Your task to perform on an android device: change the clock display to digital Image 0: 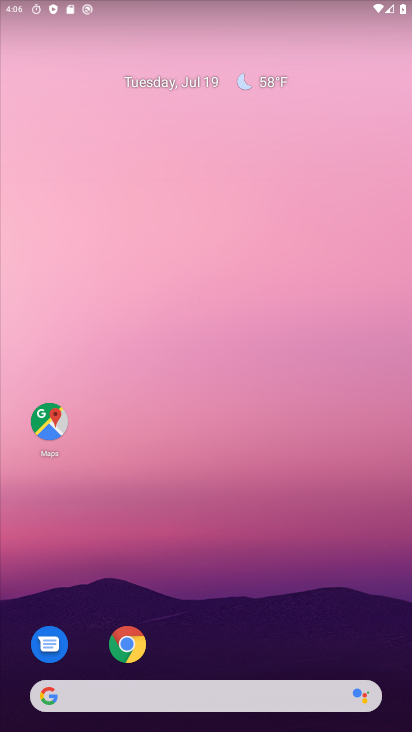
Step 0: drag from (333, 621) to (316, 117)
Your task to perform on an android device: change the clock display to digital Image 1: 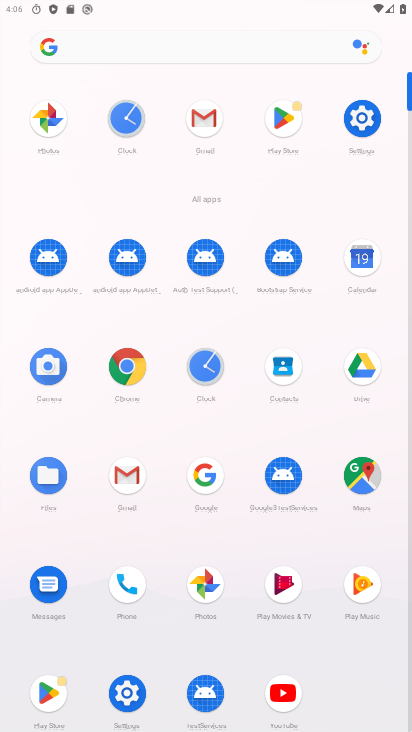
Step 1: click (208, 374)
Your task to perform on an android device: change the clock display to digital Image 2: 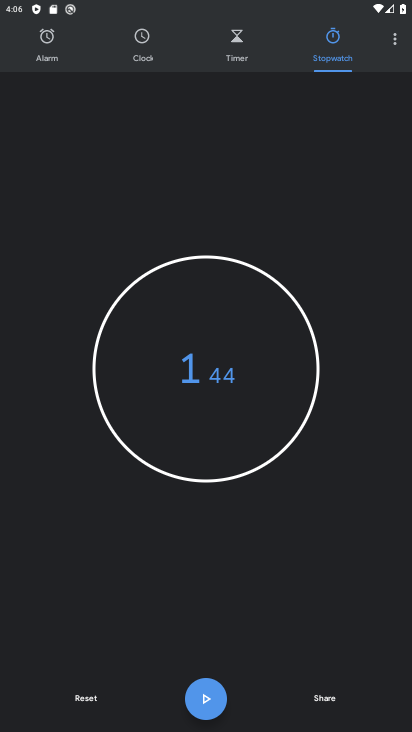
Step 2: click (394, 39)
Your task to perform on an android device: change the clock display to digital Image 3: 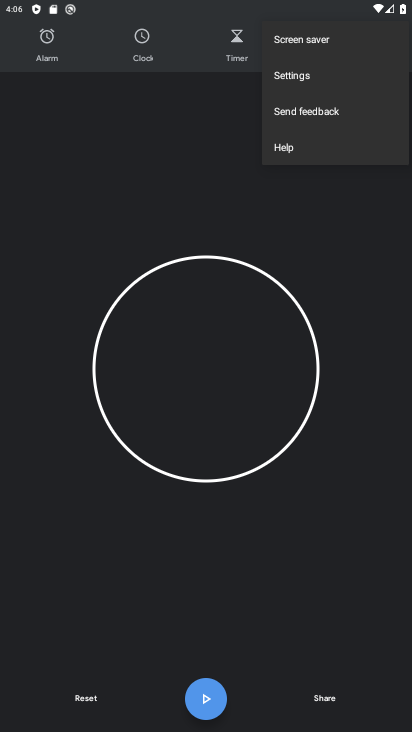
Step 3: click (309, 84)
Your task to perform on an android device: change the clock display to digital Image 4: 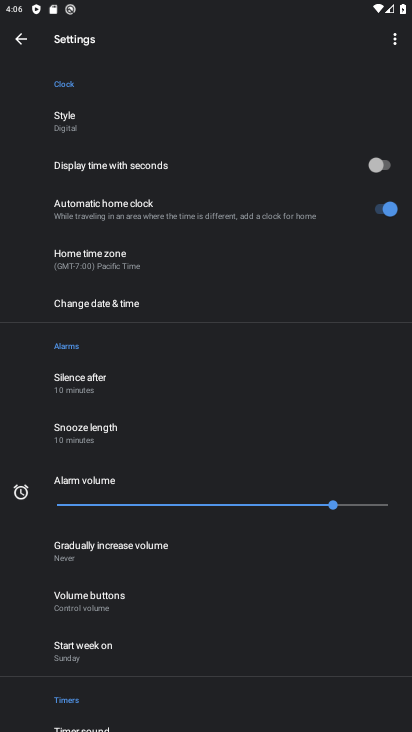
Step 4: task complete